Your task to perform on an android device: toggle show notifications on the lock screen Image 0: 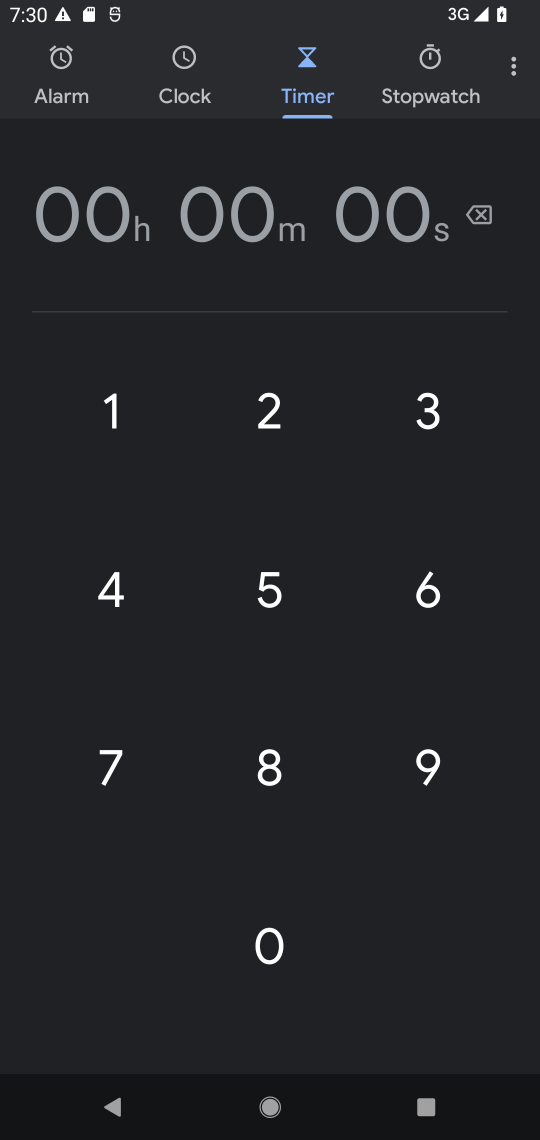
Step 0: press home button
Your task to perform on an android device: toggle show notifications on the lock screen Image 1: 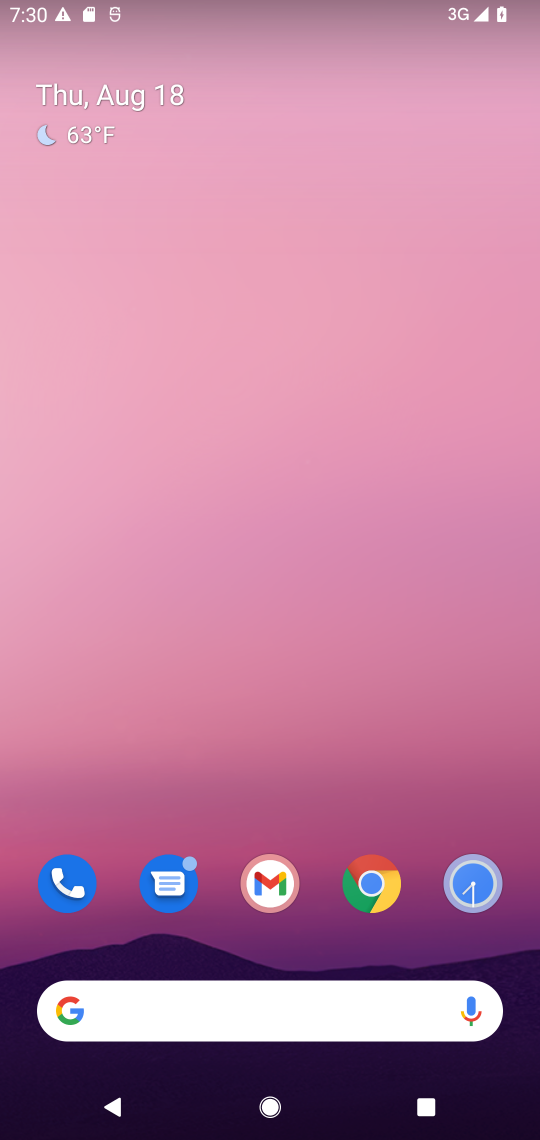
Step 1: drag from (38, 1072) to (199, 55)
Your task to perform on an android device: toggle show notifications on the lock screen Image 2: 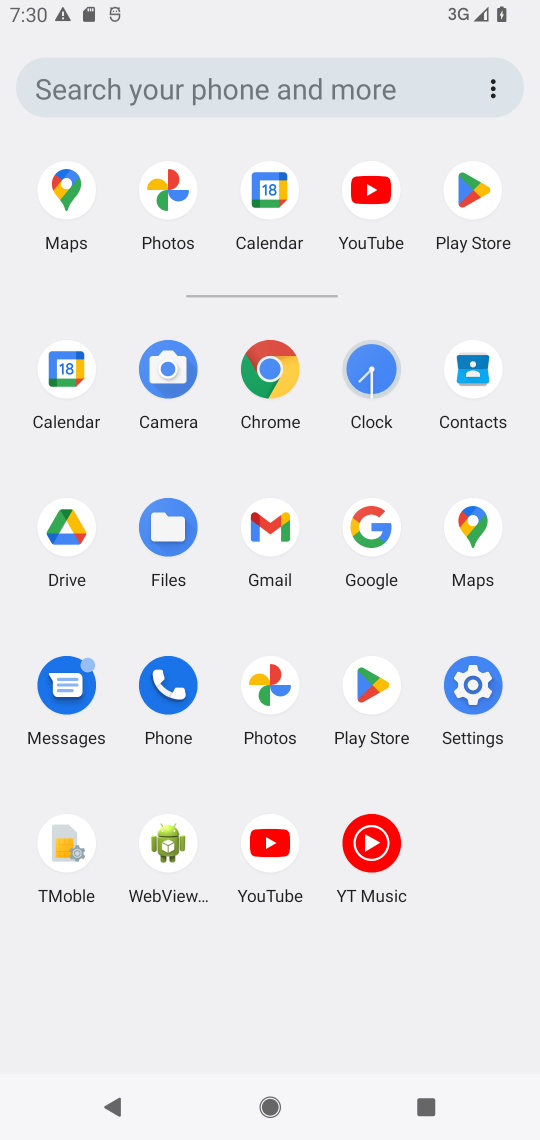
Step 2: click (485, 704)
Your task to perform on an android device: toggle show notifications on the lock screen Image 3: 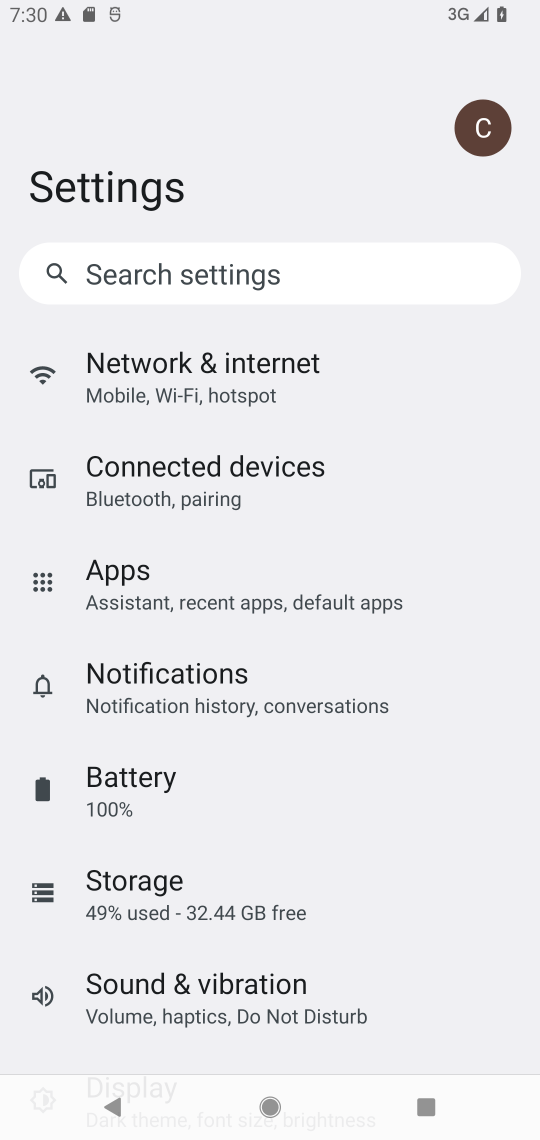
Step 3: drag from (375, 1002) to (319, 426)
Your task to perform on an android device: toggle show notifications on the lock screen Image 4: 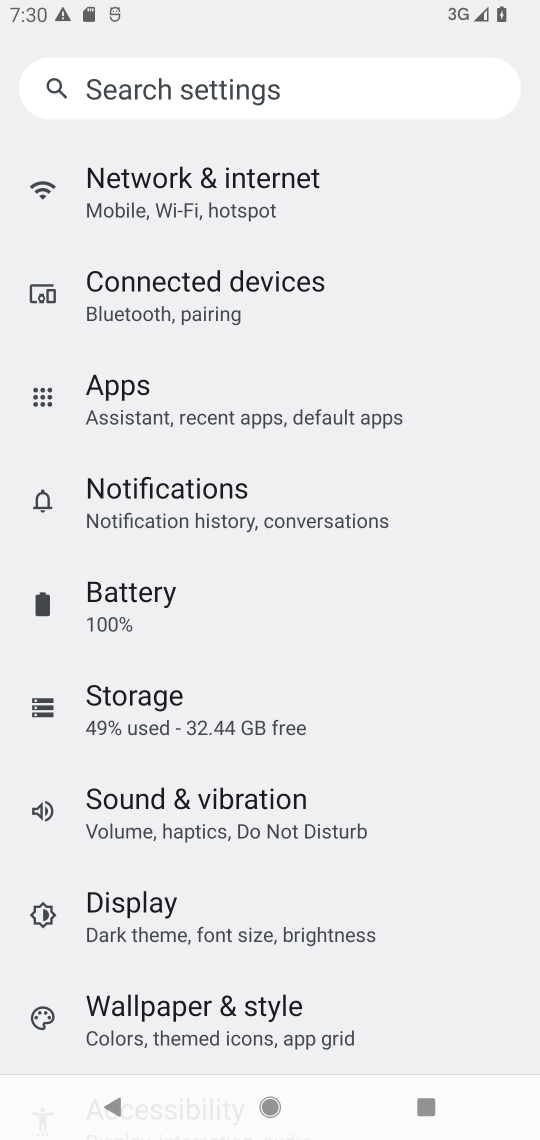
Step 4: click (217, 504)
Your task to perform on an android device: toggle show notifications on the lock screen Image 5: 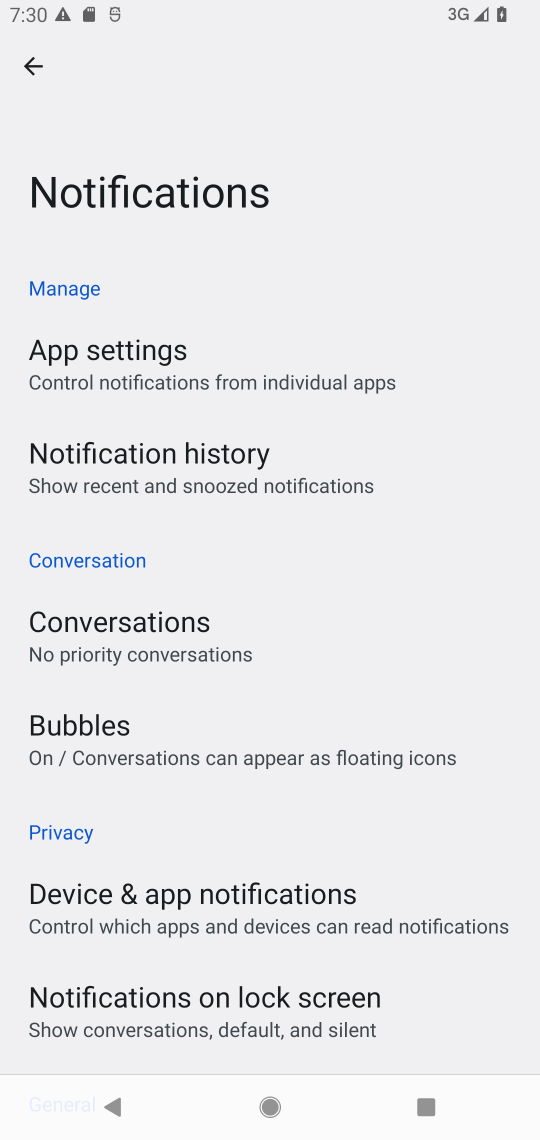
Step 5: click (325, 1014)
Your task to perform on an android device: toggle show notifications on the lock screen Image 6: 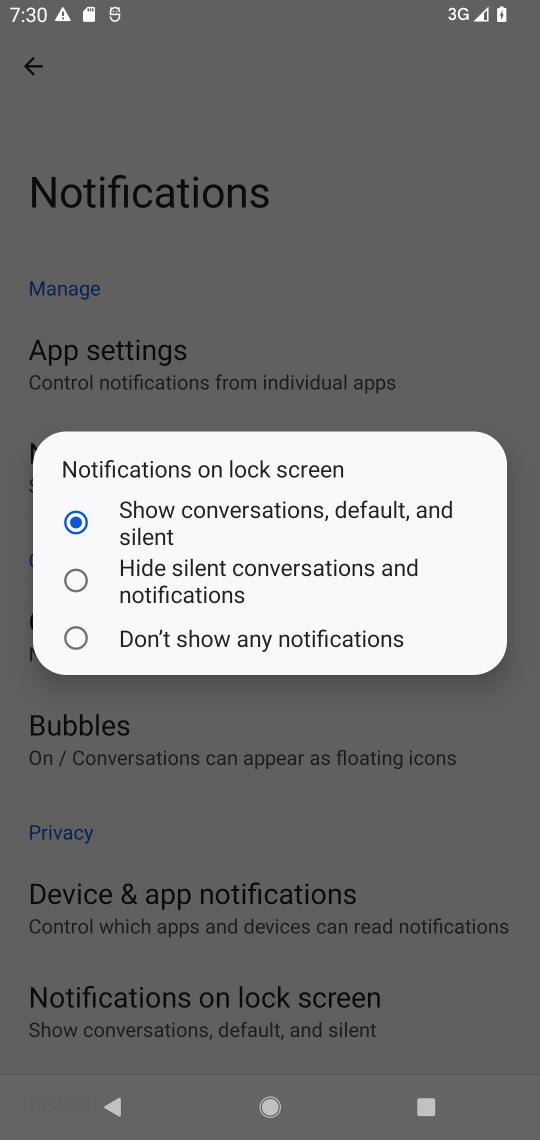
Step 6: task complete